Your task to perform on an android device: Go to eBay Image 0: 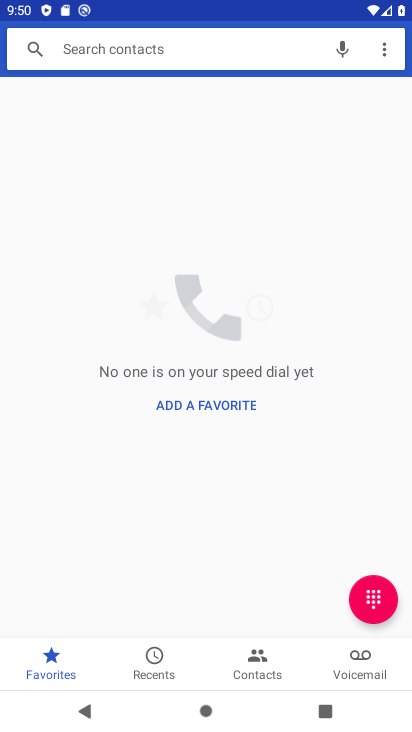
Step 0: press home button
Your task to perform on an android device: Go to eBay Image 1: 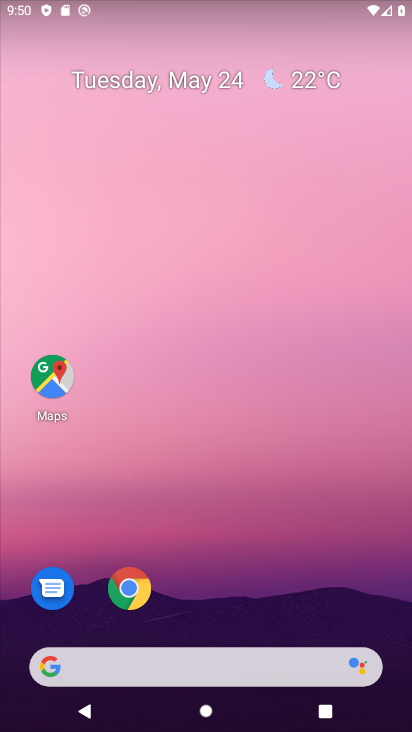
Step 1: click (137, 571)
Your task to perform on an android device: Go to eBay Image 2: 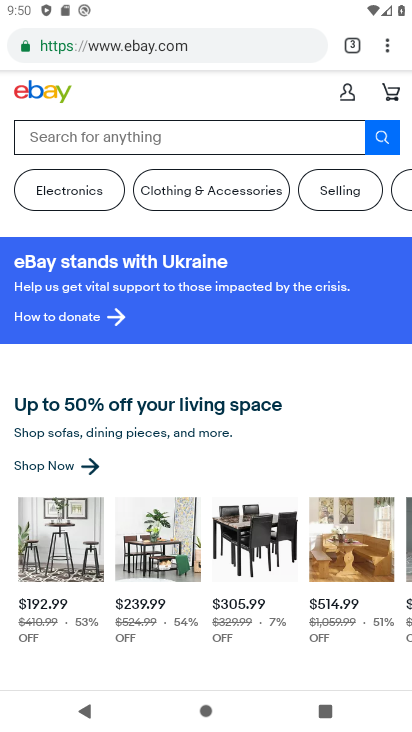
Step 2: task complete